Your task to perform on an android device: open chrome privacy settings Image 0: 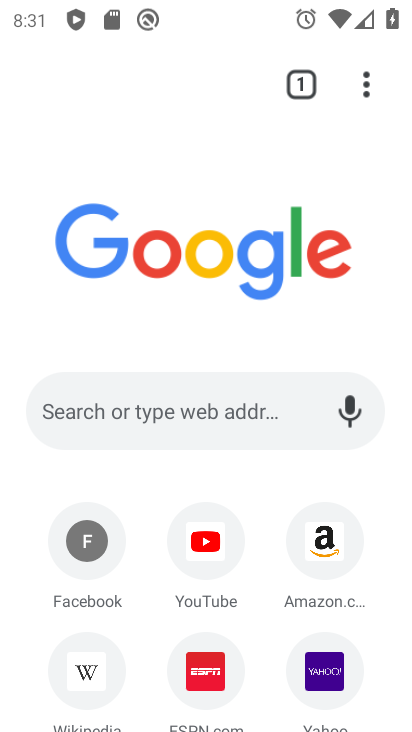
Step 0: press home button
Your task to perform on an android device: open chrome privacy settings Image 1: 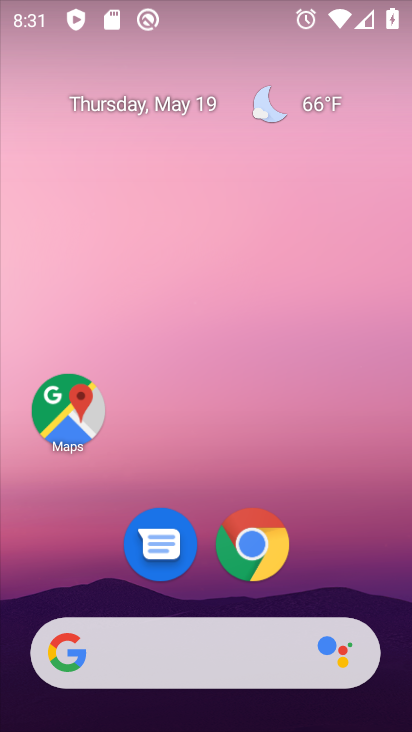
Step 1: drag from (387, 635) to (266, 29)
Your task to perform on an android device: open chrome privacy settings Image 2: 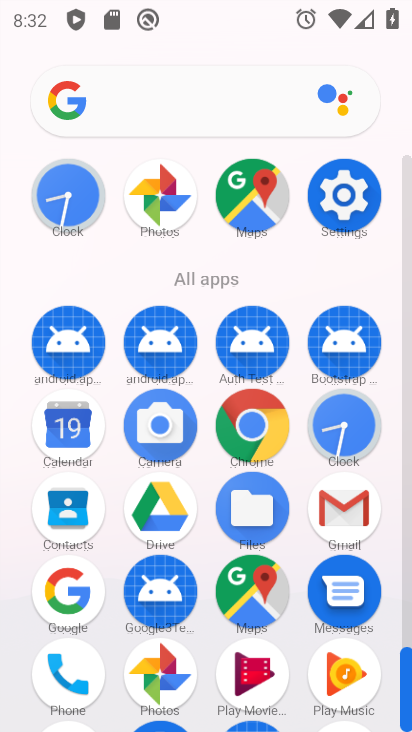
Step 2: drag from (112, 651) to (106, 200)
Your task to perform on an android device: open chrome privacy settings Image 3: 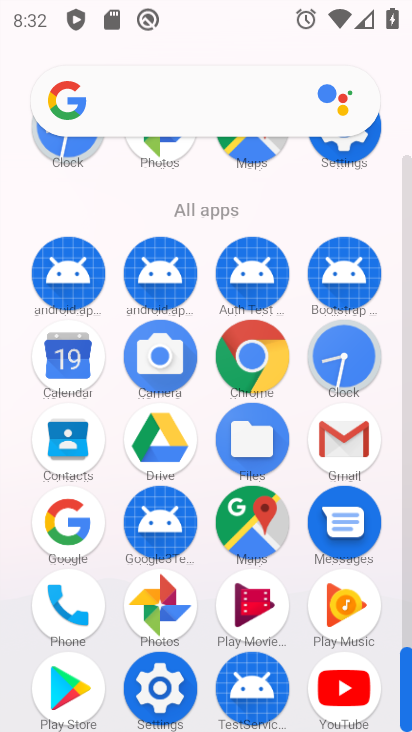
Step 3: click (248, 375)
Your task to perform on an android device: open chrome privacy settings Image 4: 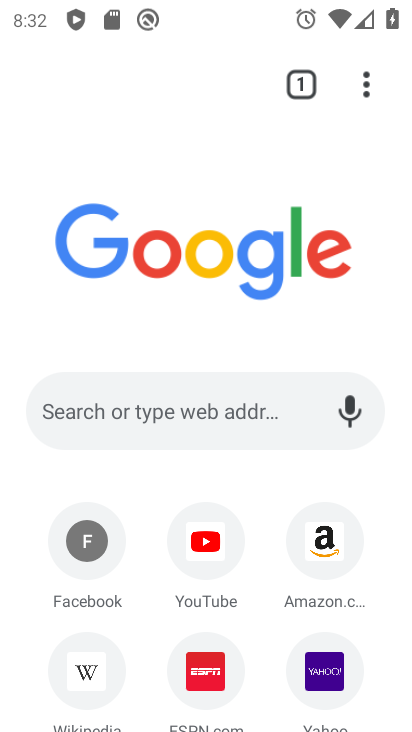
Step 4: click (372, 79)
Your task to perform on an android device: open chrome privacy settings Image 5: 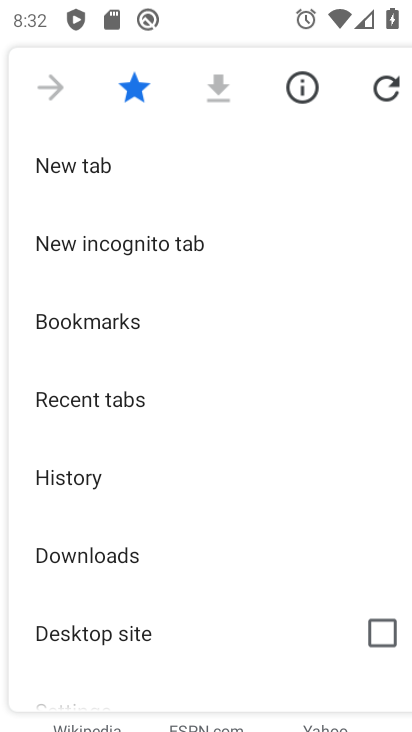
Step 5: drag from (122, 628) to (191, 206)
Your task to perform on an android device: open chrome privacy settings Image 6: 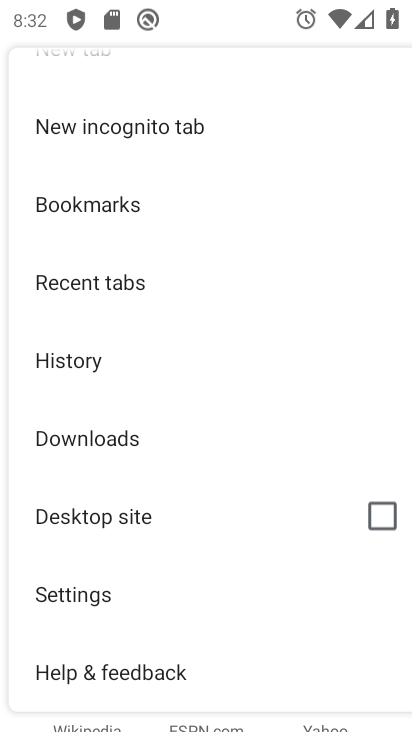
Step 6: click (105, 587)
Your task to perform on an android device: open chrome privacy settings Image 7: 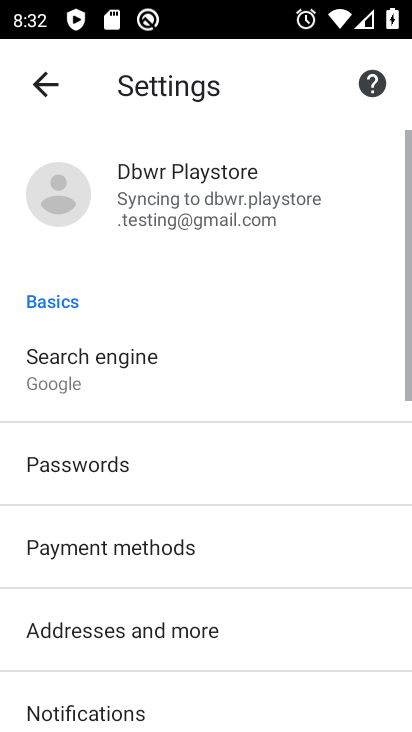
Step 7: drag from (93, 658) to (148, 220)
Your task to perform on an android device: open chrome privacy settings Image 8: 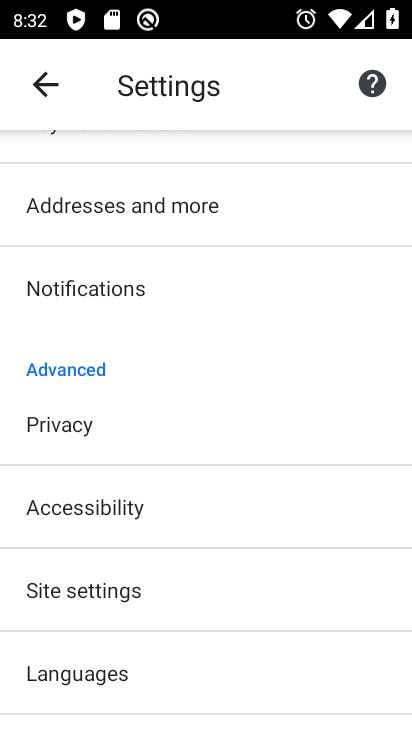
Step 8: click (165, 398)
Your task to perform on an android device: open chrome privacy settings Image 9: 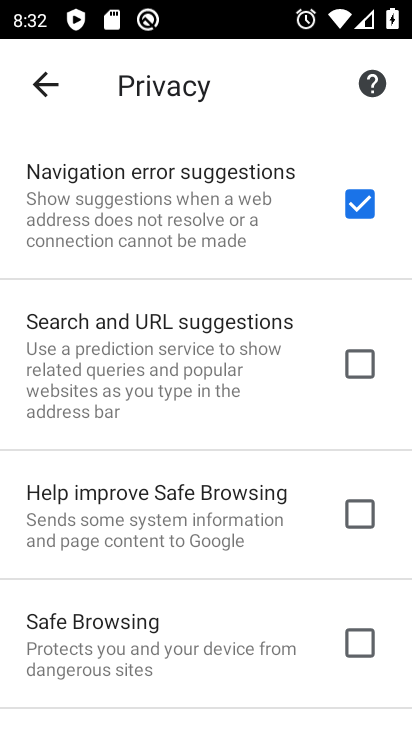
Step 9: task complete